Your task to perform on an android device: delete a single message in the gmail app Image 0: 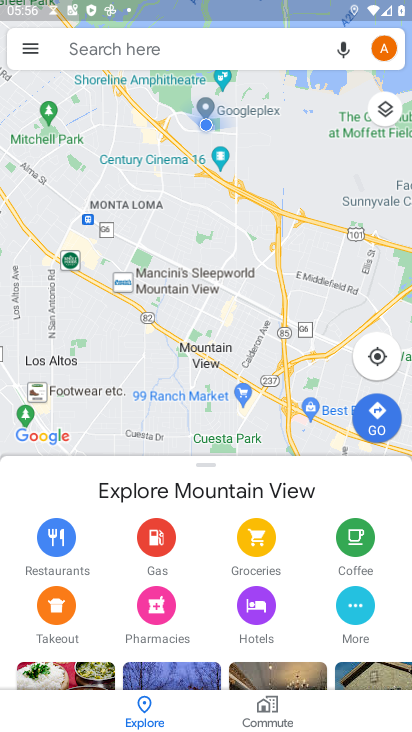
Step 0: press home button
Your task to perform on an android device: delete a single message in the gmail app Image 1: 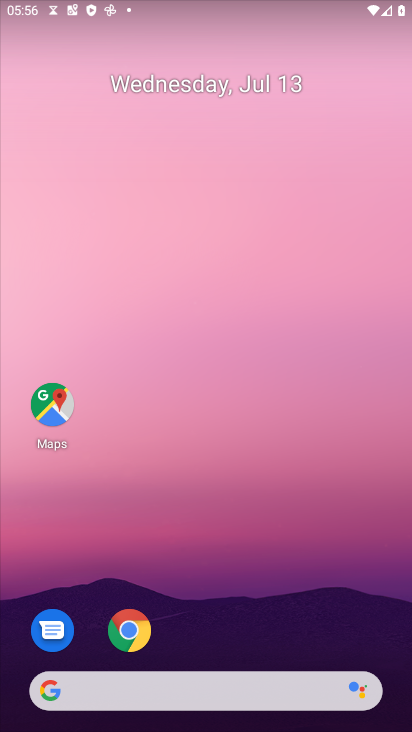
Step 1: drag from (274, 710) to (317, 280)
Your task to perform on an android device: delete a single message in the gmail app Image 2: 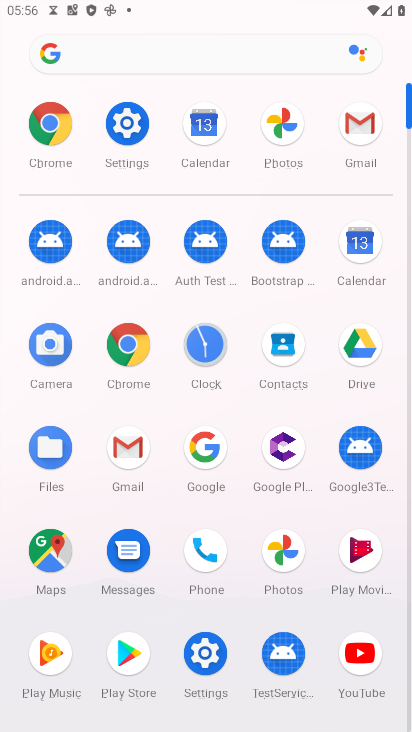
Step 2: click (132, 453)
Your task to perform on an android device: delete a single message in the gmail app Image 3: 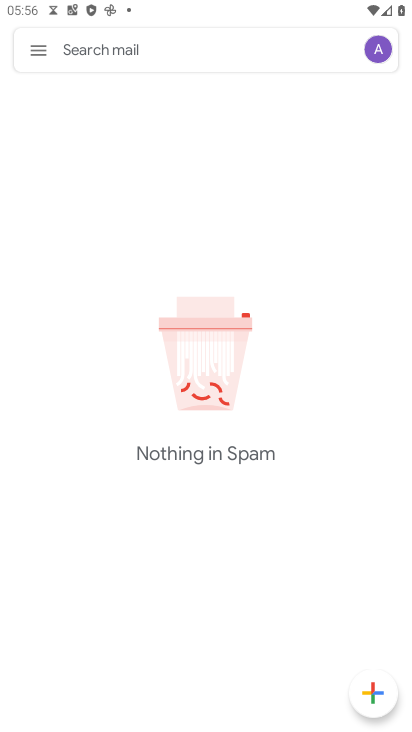
Step 3: click (34, 38)
Your task to perform on an android device: delete a single message in the gmail app Image 4: 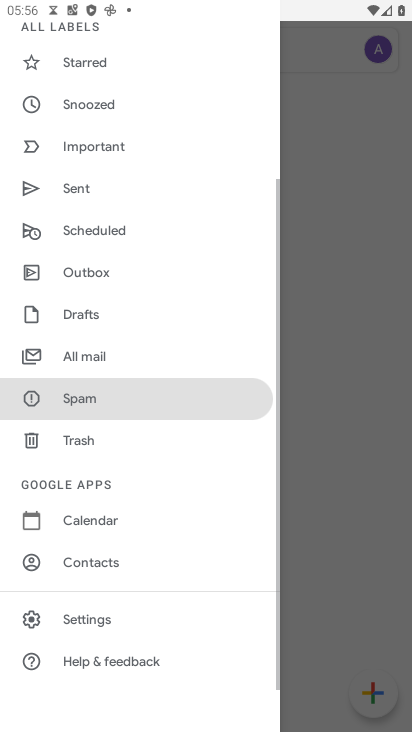
Step 4: drag from (88, 78) to (24, 730)
Your task to perform on an android device: delete a single message in the gmail app Image 5: 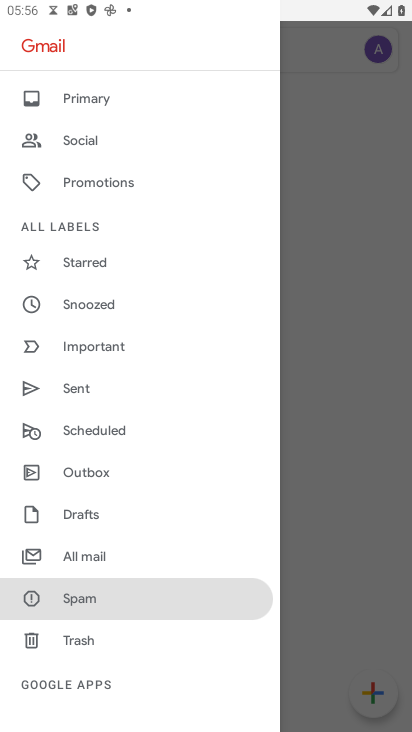
Step 5: click (106, 84)
Your task to perform on an android device: delete a single message in the gmail app Image 6: 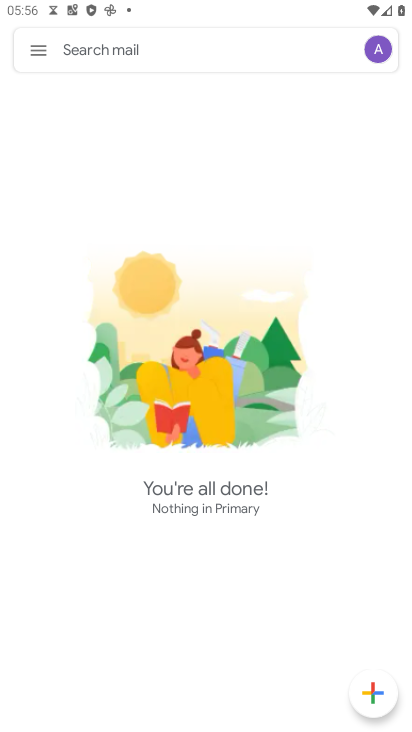
Step 6: task complete